Your task to perform on an android device: Search for sushi restaurants on Maps Image 0: 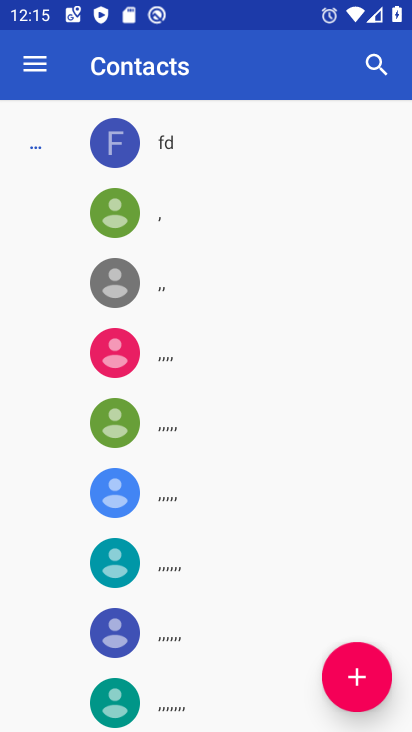
Step 0: press home button
Your task to perform on an android device: Search for sushi restaurants on Maps Image 1: 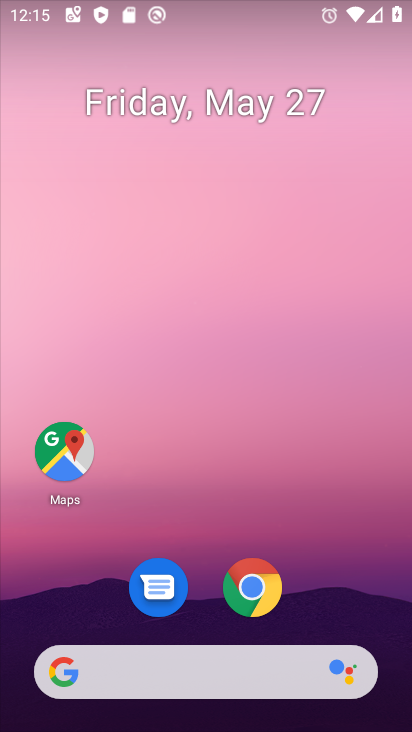
Step 1: drag from (238, 666) to (313, 59)
Your task to perform on an android device: Search for sushi restaurants on Maps Image 2: 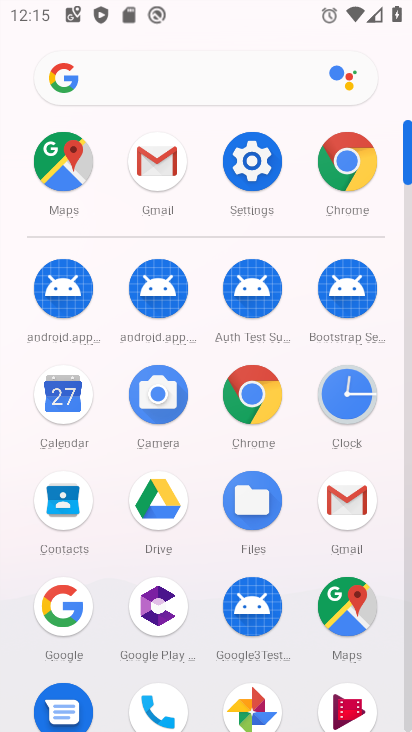
Step 2: click (81, 178)
Your task to perform on an android device: Search for sushi restaurants on Maps Image 3: 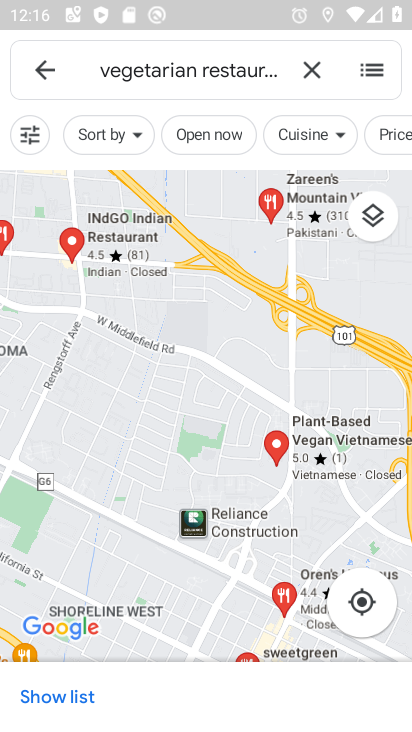
Step 3: click (307, 68)
Your task to perform on an android device: Search for sushi restaurants on Maps Image 4: 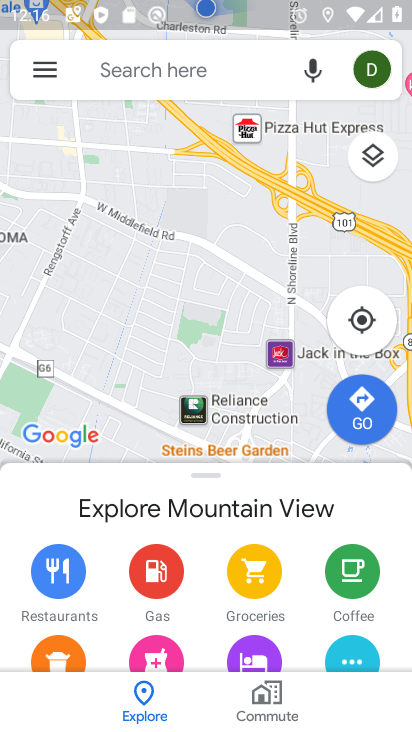
Step 4: click (177, 79)
Your task to perform on an android device: Search for sushi restaurants on Maps Image 5: 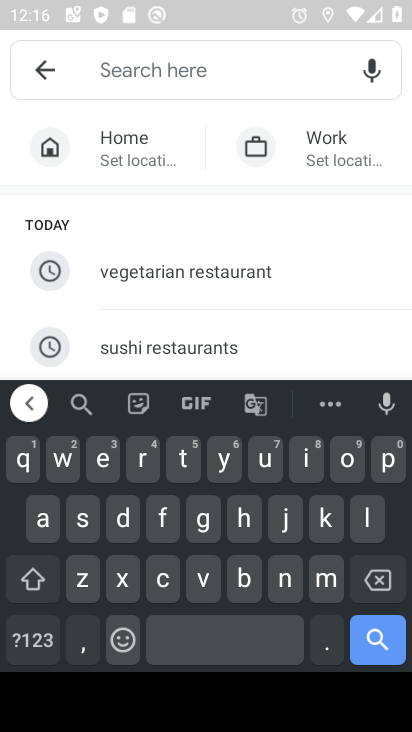
Step 5: click (182, 351)
Your task to perform on an android device: Search for sushi restaurants on Maps Image 6: 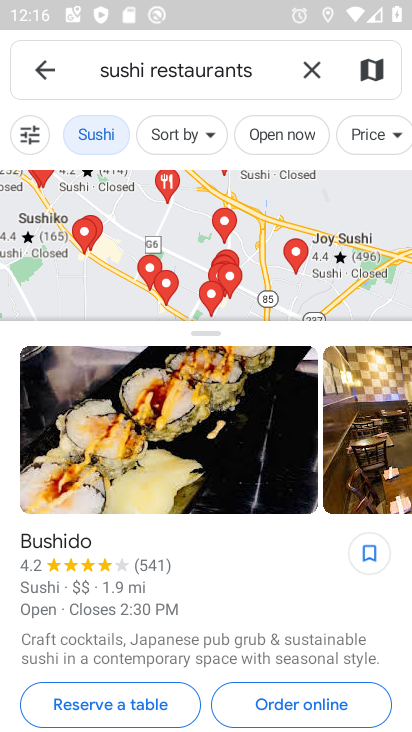
Step 6: click (169, 218)
Your task to perform on an android device: Search for sushi restaurants on Maps Image 7: 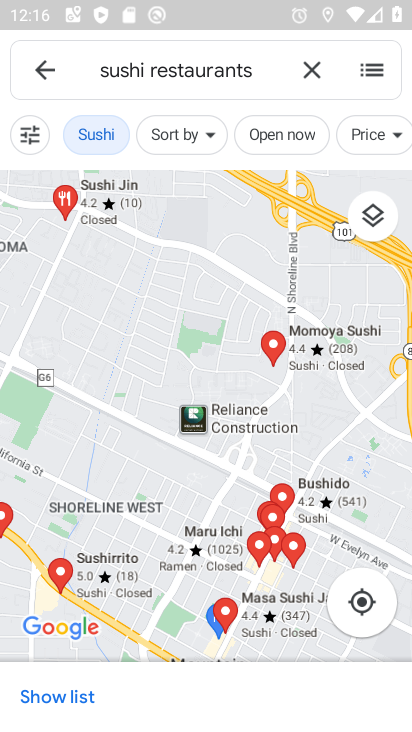
Step 7: task complete